Your task to perform on an android device: check storage Image 0: 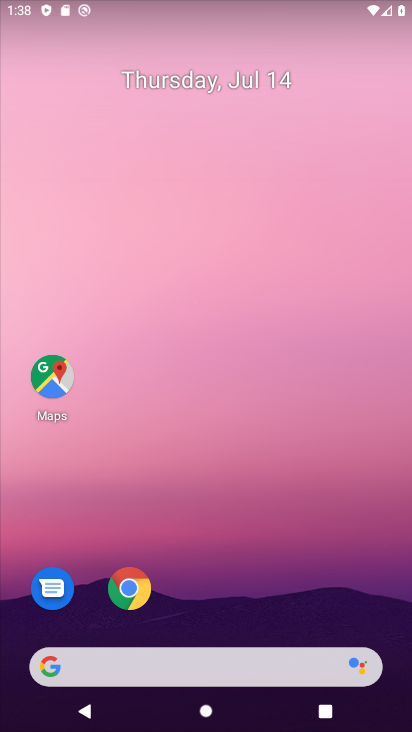
Step 0: drag from (271, 688) to (175, 214)
Your task to perform on an android device: check storage Image 1: 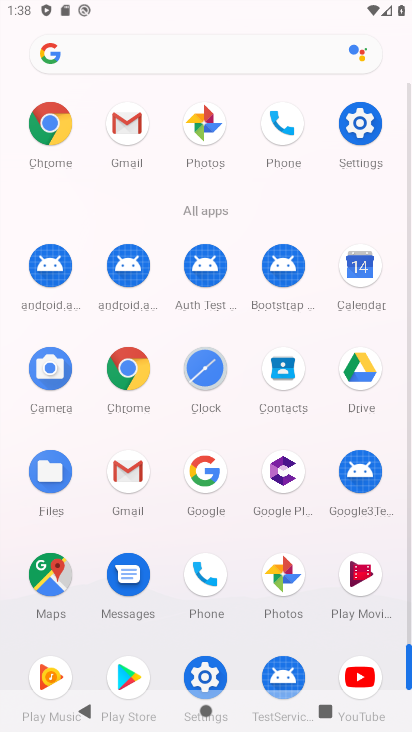
Step 1: click (367, 134)
Your task to perform on an android device: check storage Image 2: 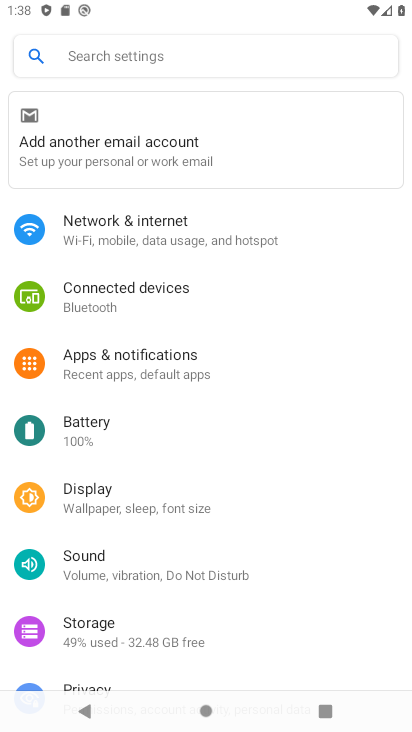
Step 2: click (97, 624)
Your task to perform on an android device: check storage Image 3: 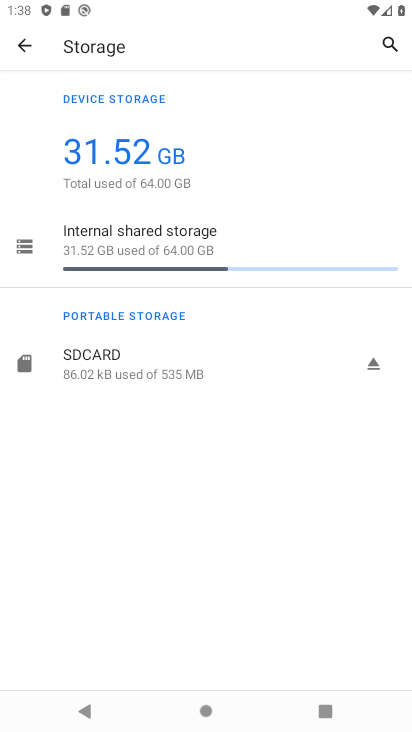
Step 3: task complete